Your task to perform on an android device: Clear all items from cart on costco.com. Image 0: 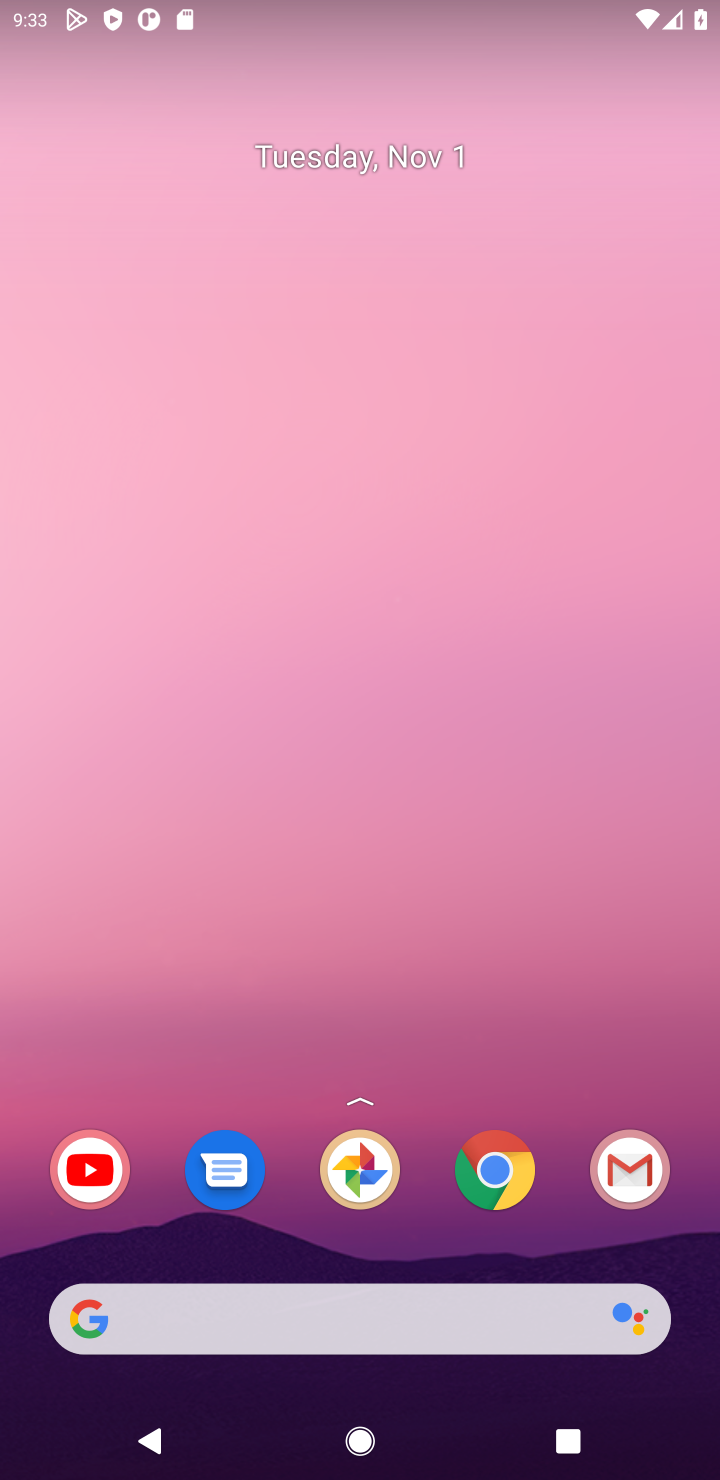
Step 0: click (410, 159)
Your task to perform on an android device: Clear all items from cart on costco.com. Image 1: 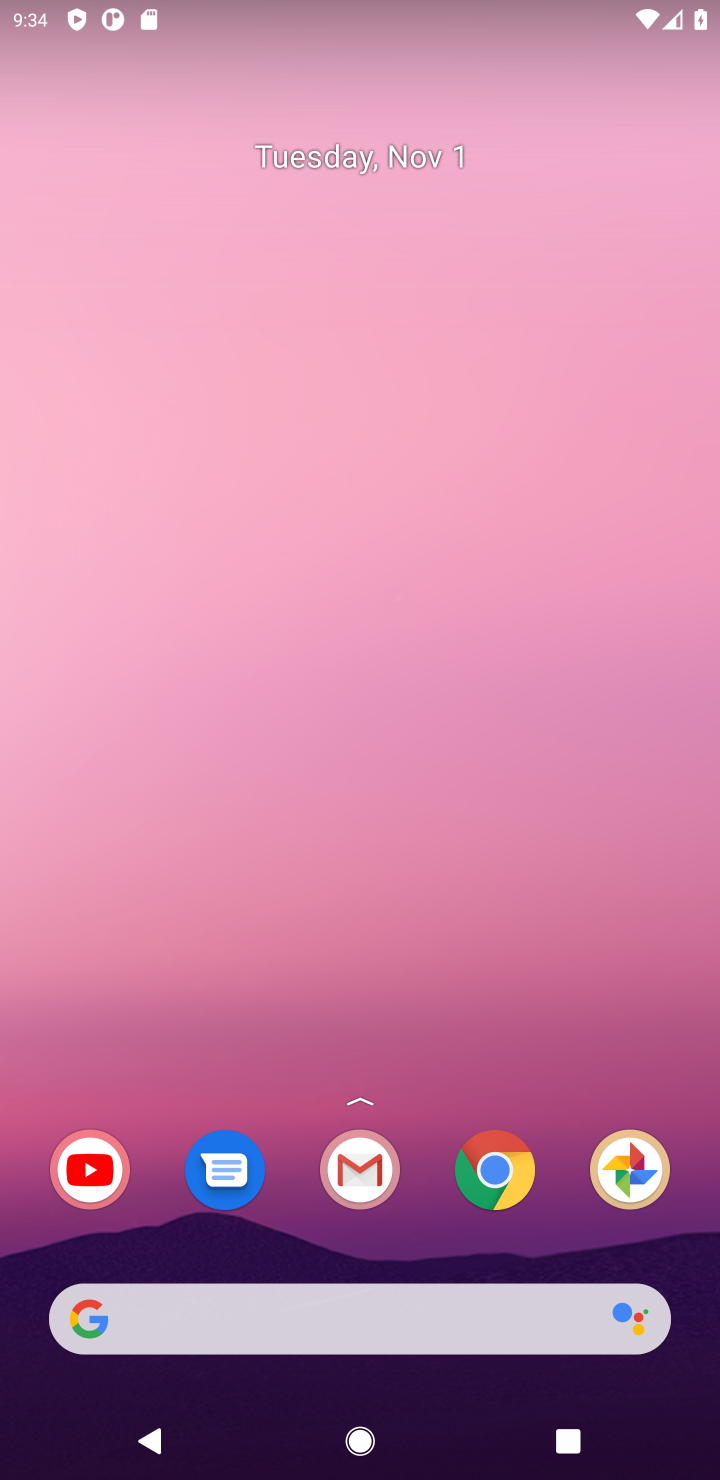
Step 1: drag from (416, 1099) to (398, 27)
Your task to perform on an android device: Clear all items from cart on costco.com. Image 2: 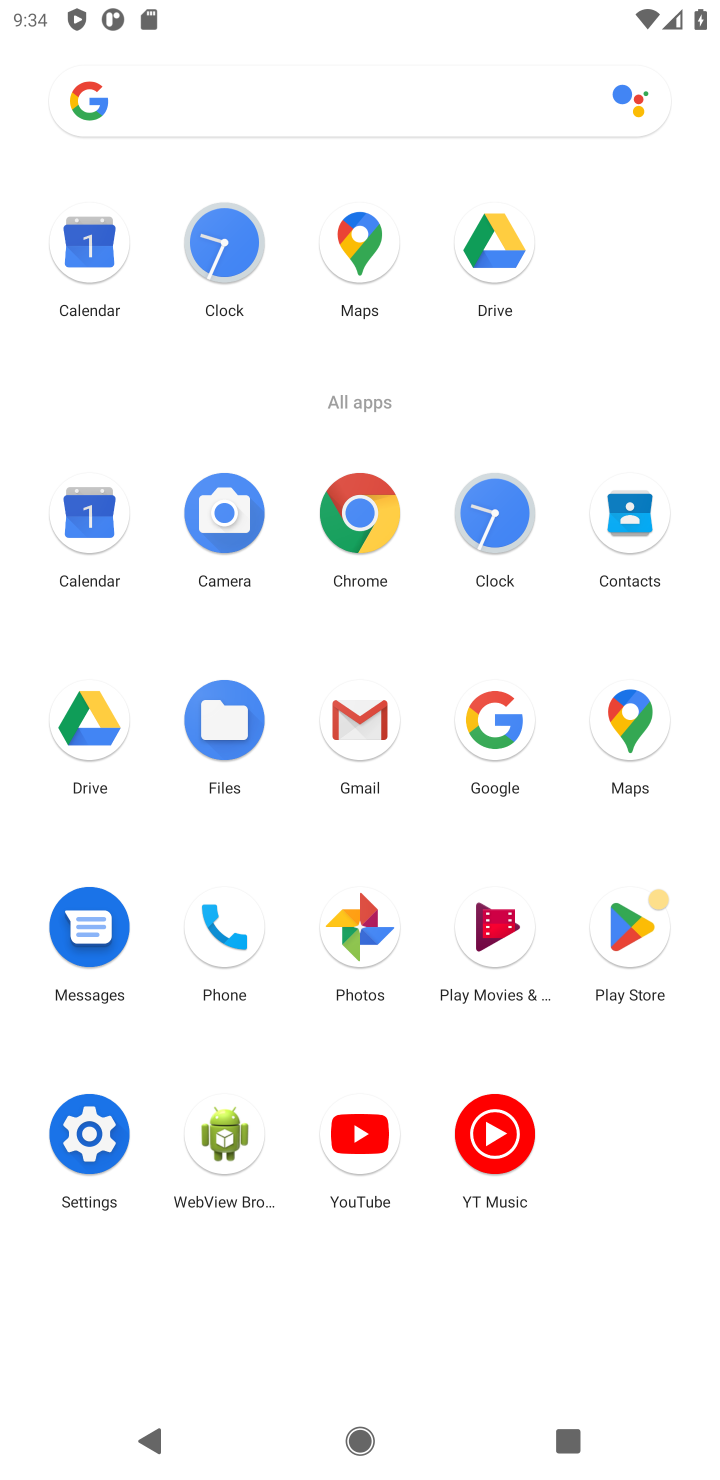
Step 2: click (357, 513)
Your task to perform on an android device: Clear all items from cart on costco.com. Image 3: 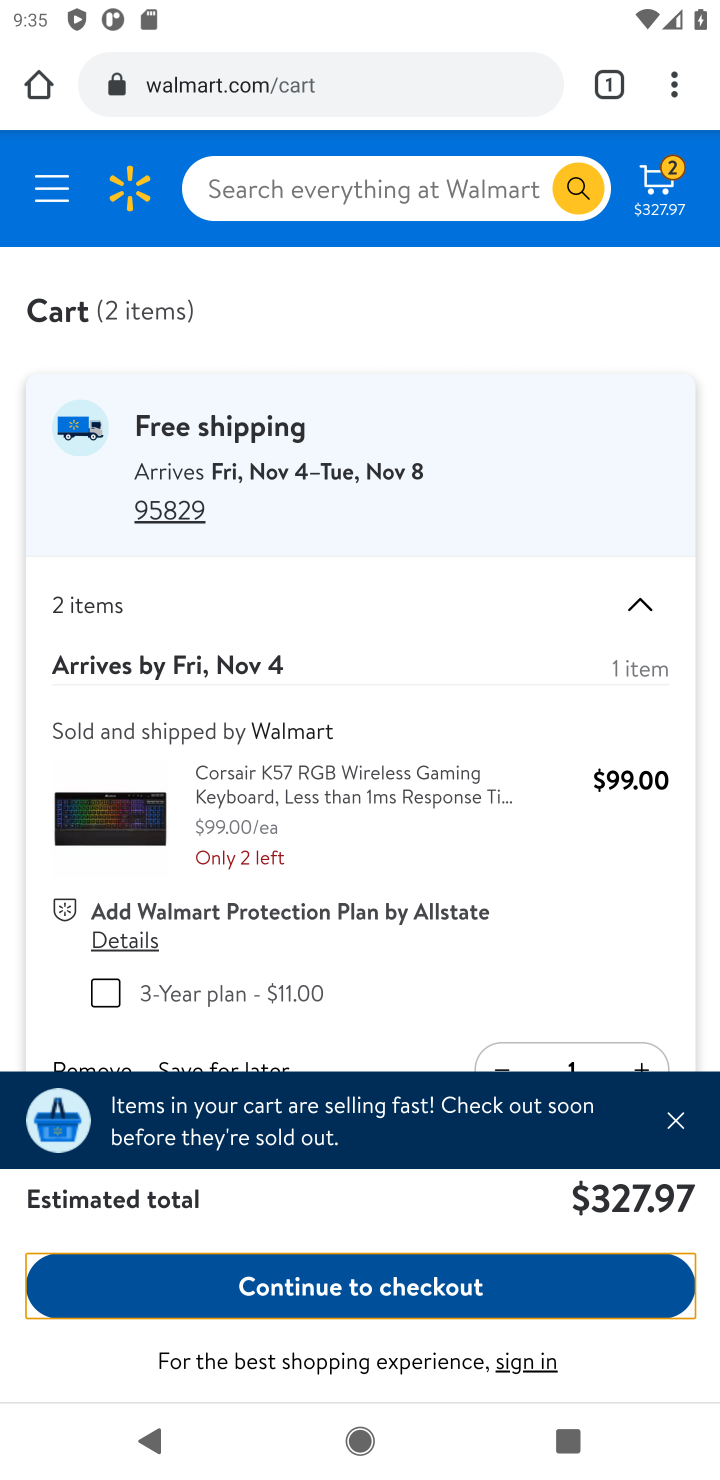
Step 3: click (230, 77)
Your task to perform on an android device: Clear all items from cart on costco.com. Image 4: 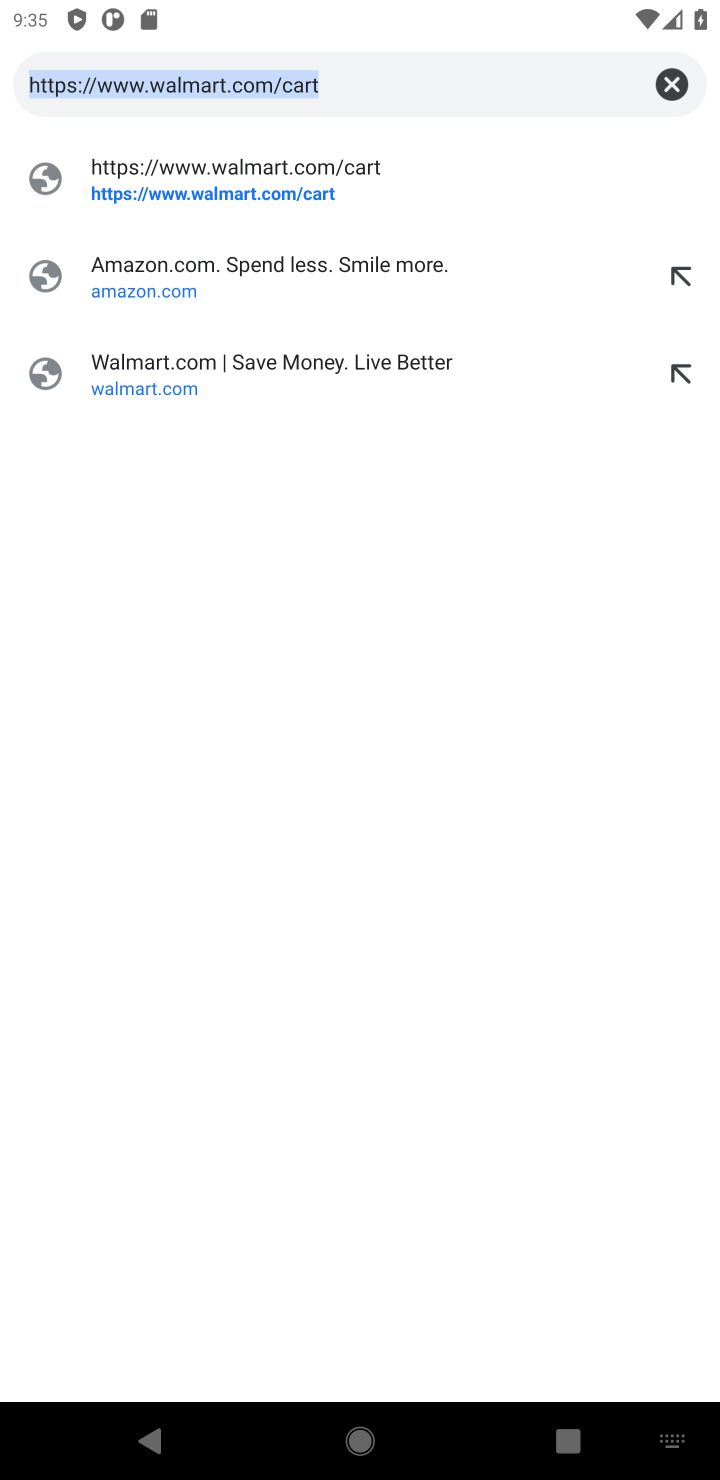
Step 4: type "costco.com."
Your task to perform on an android device: Clear all items from cart on costco.com. Image 5: 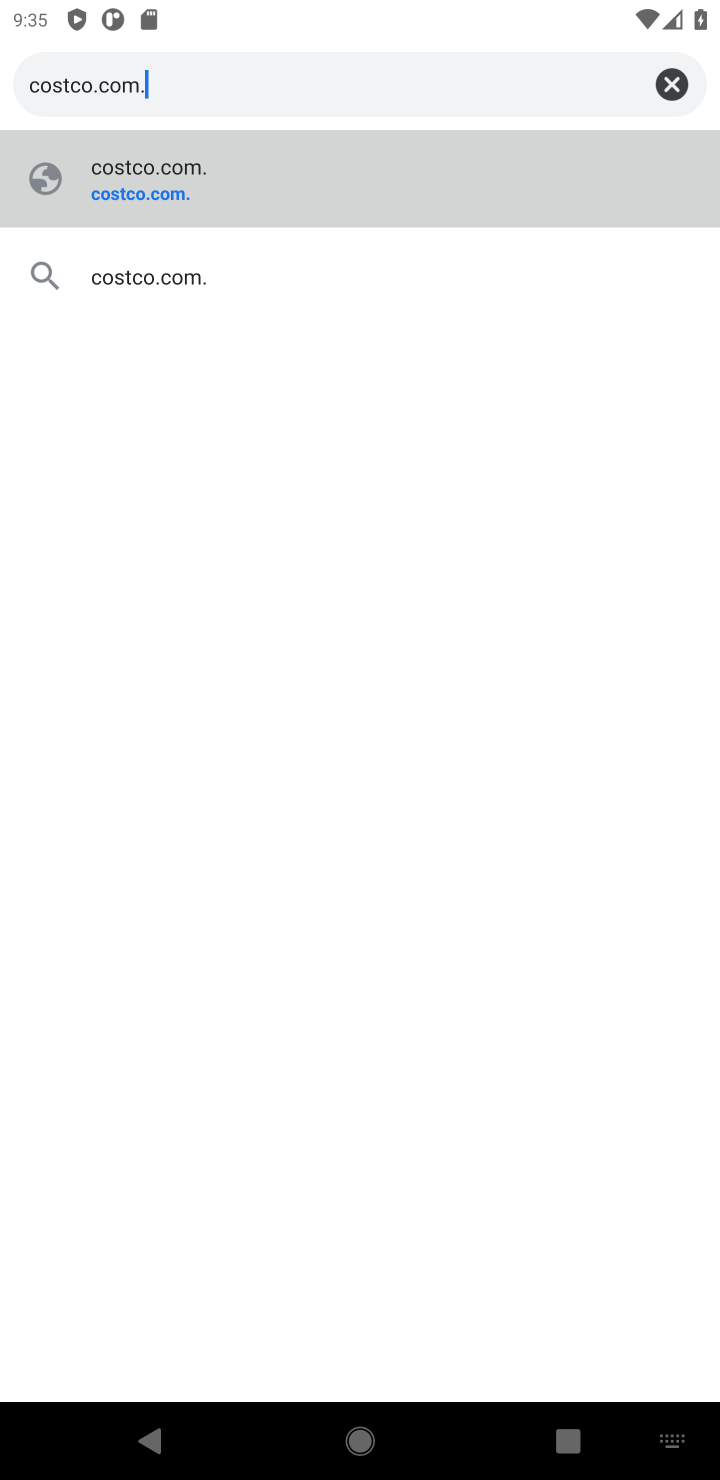
Step 5: type "costco.com"
Your task to perform on an android device: Clear all items from cart on costco.com. Image 6: 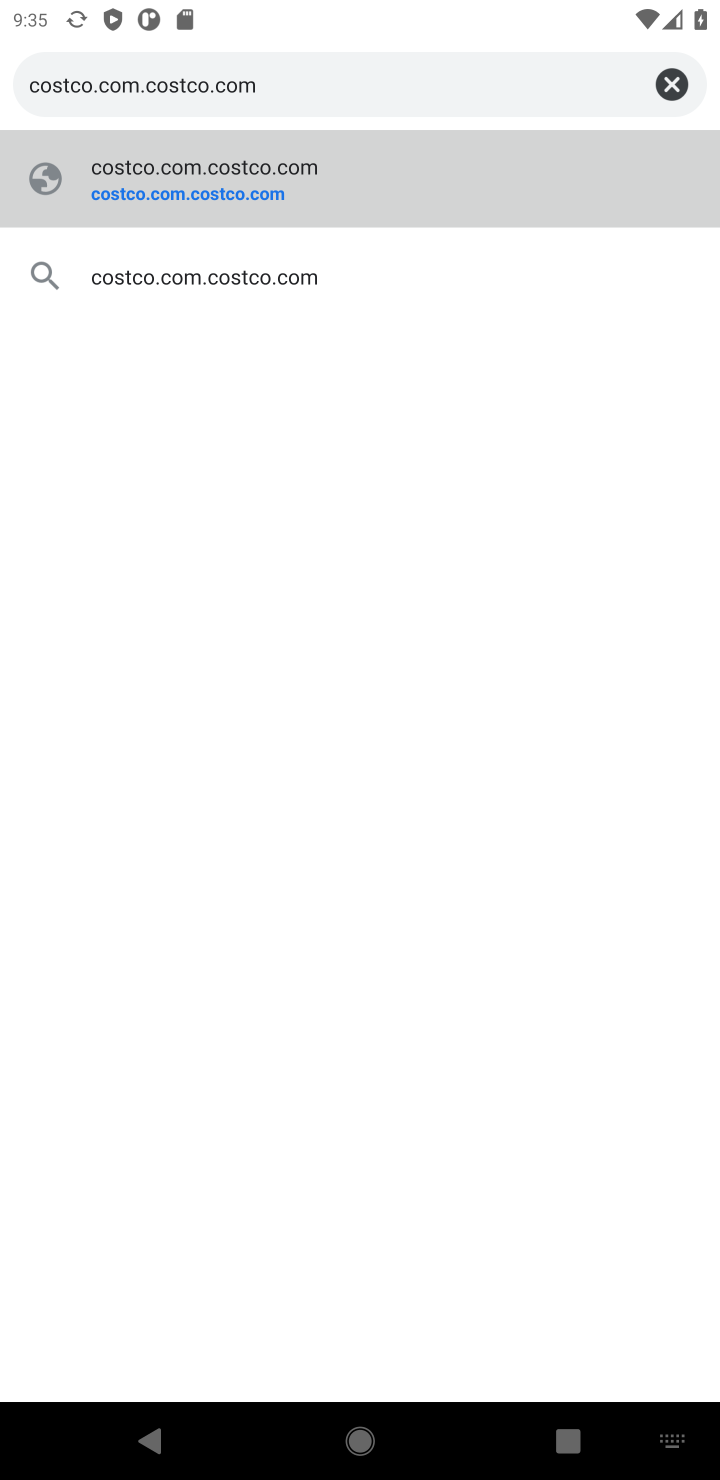
Step 6: click (146, 194)
Your task to perform on an android device: Clear all items from cart on costco.com. Image 7: 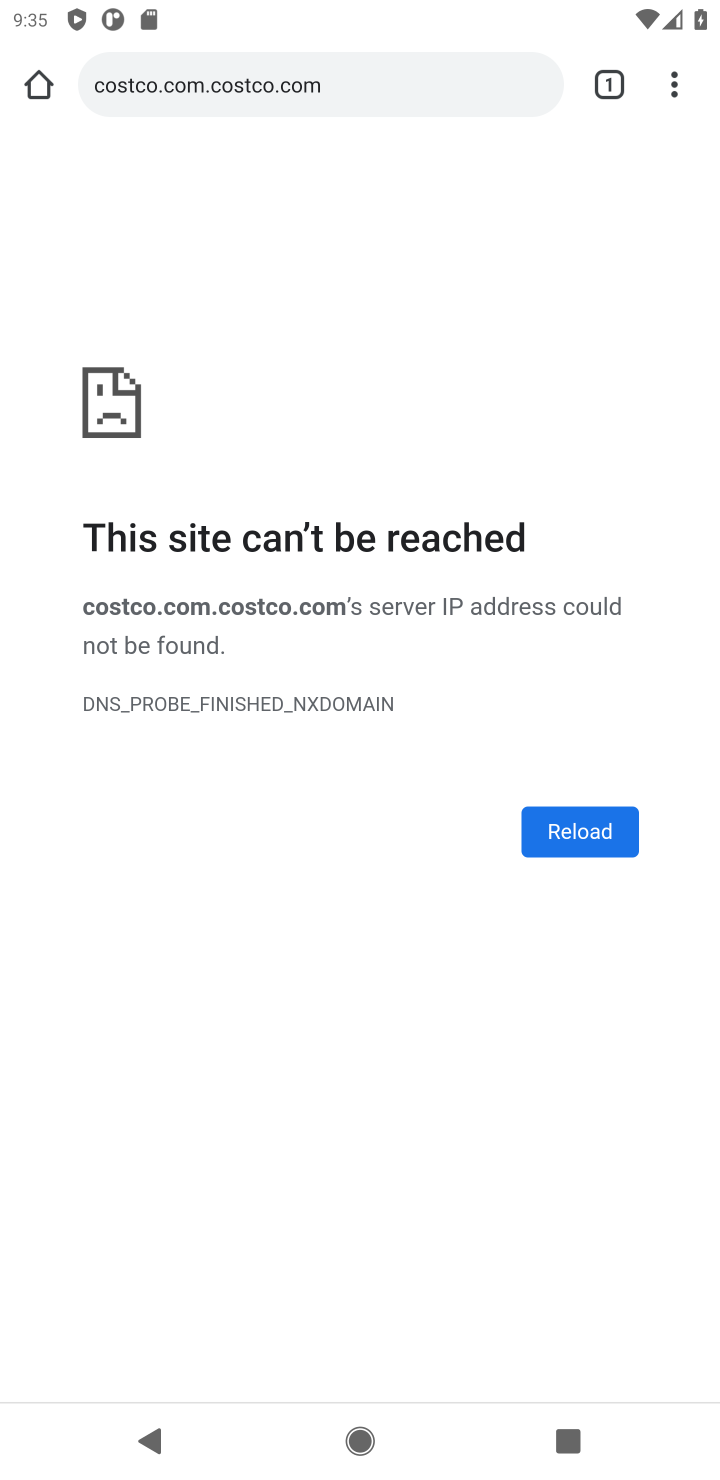
Step 7: click (187, 80)
Your task to perform on an android device: Clear all items from cart on costco.com. Image 8: 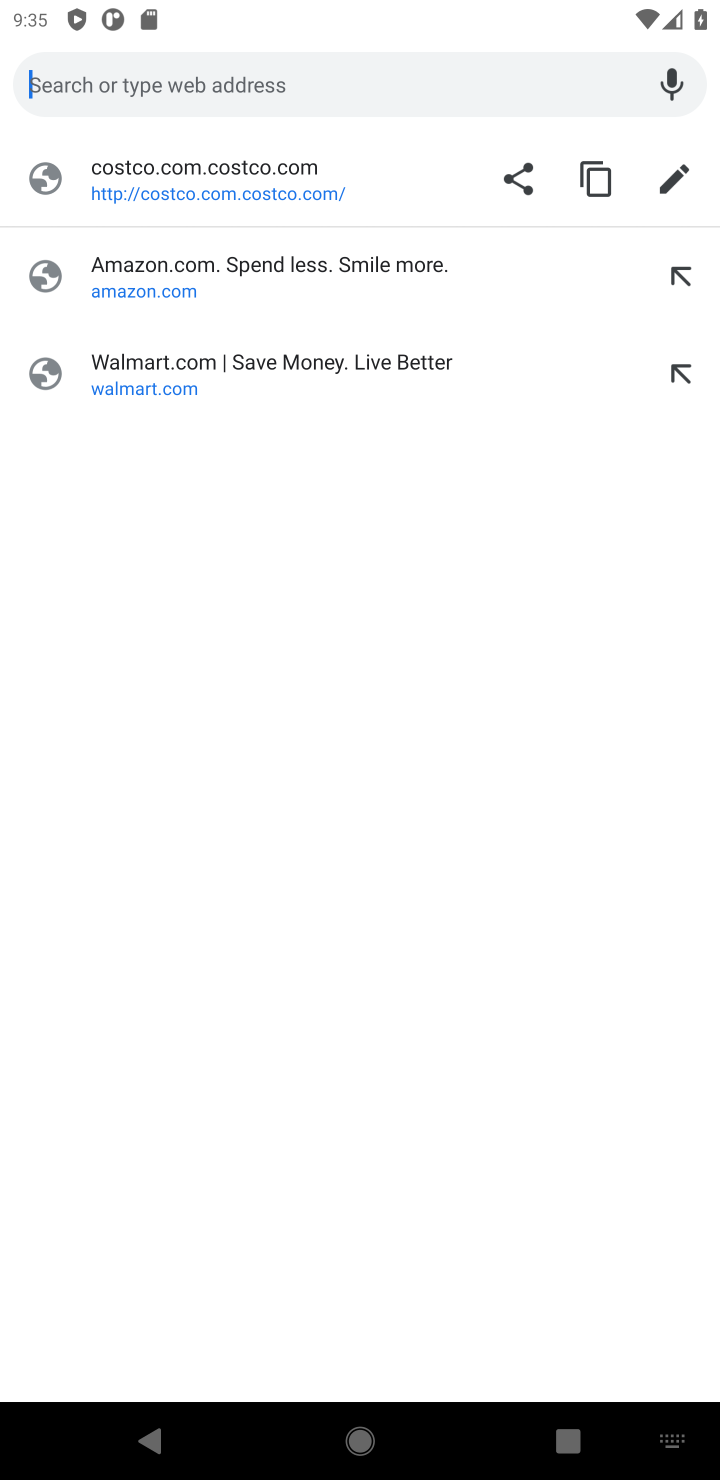
Step 8: type "costco.com."
Your task to perform on an android device: Clear all items from cart on costco.com. Image 9: 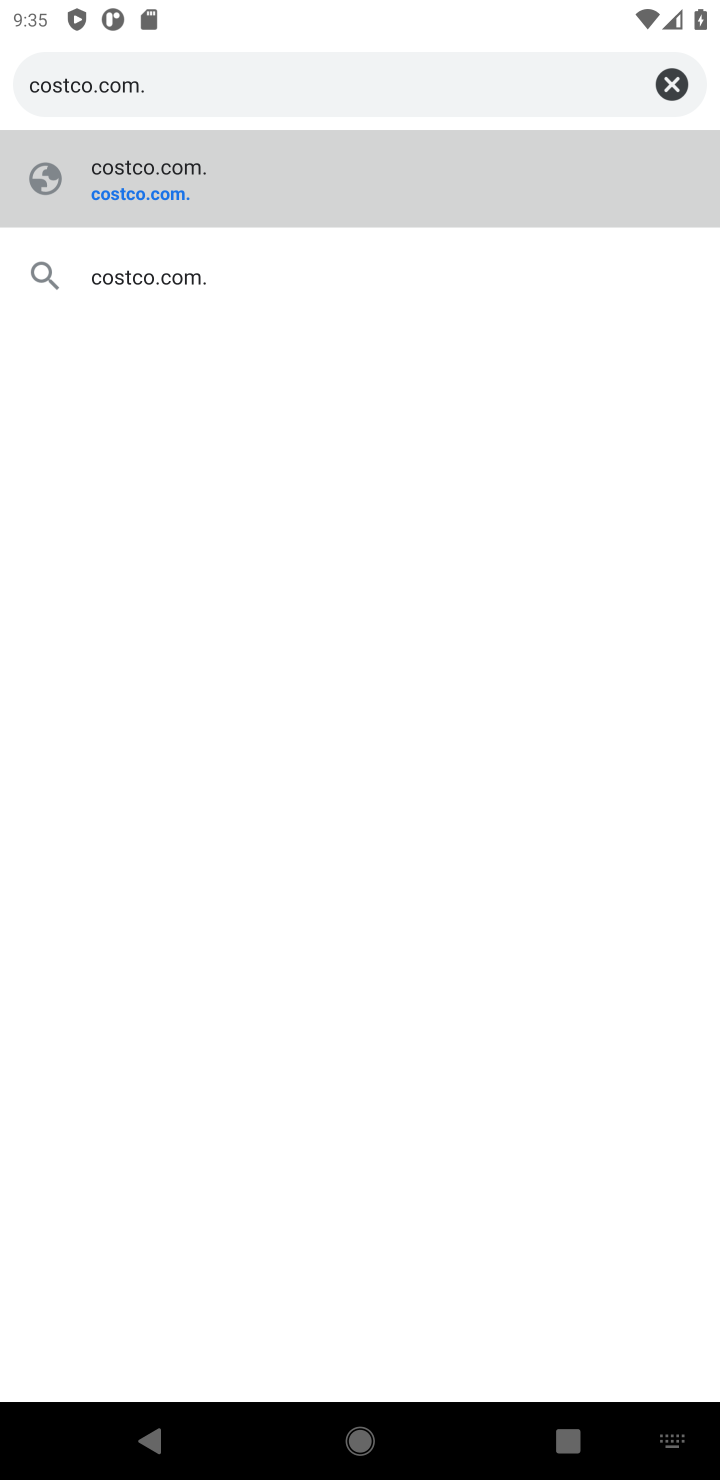
Step 9: click (172, 208)
Your task to perform on an android device: Clear all items from cart on costco.com. Image 10: 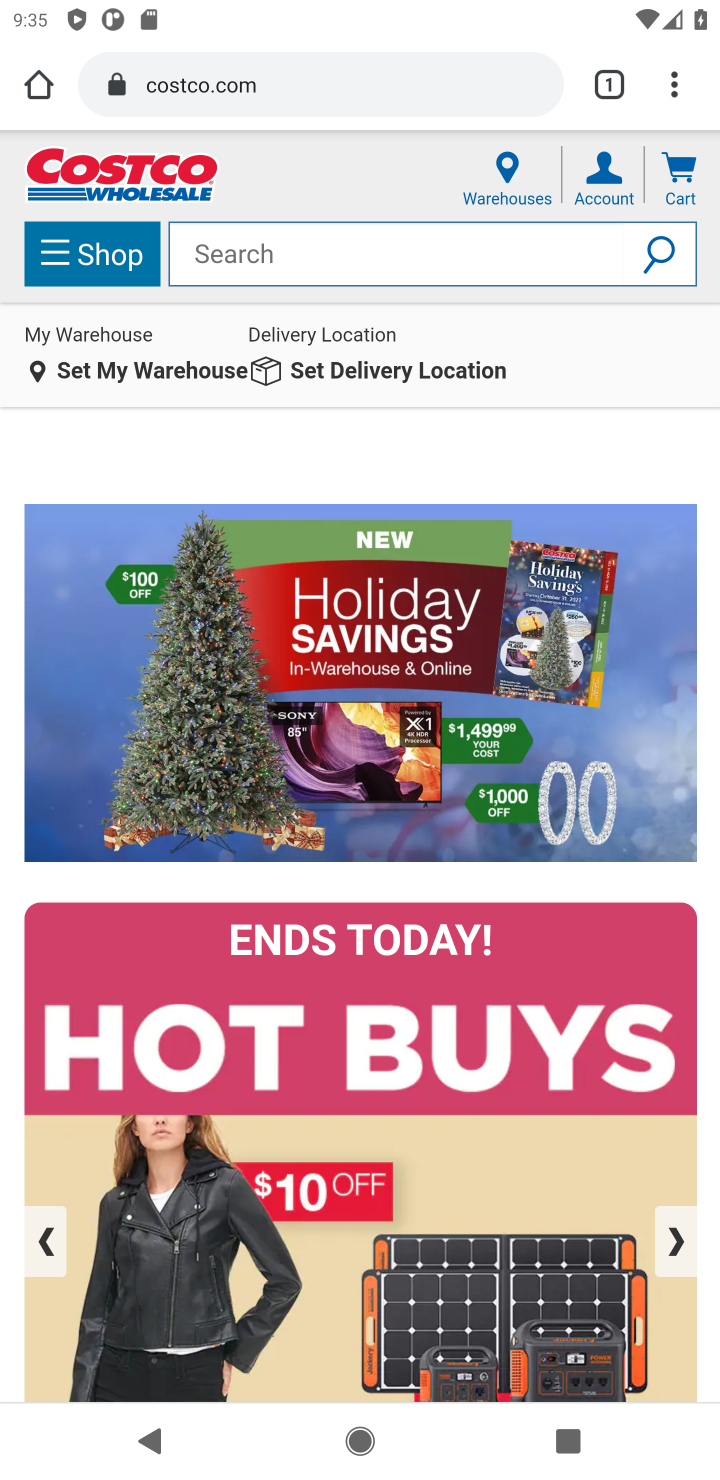
Step 10: click (305, 245)
Your task to perform on an android device: Clear all items from cart on costco.com. Image 11: 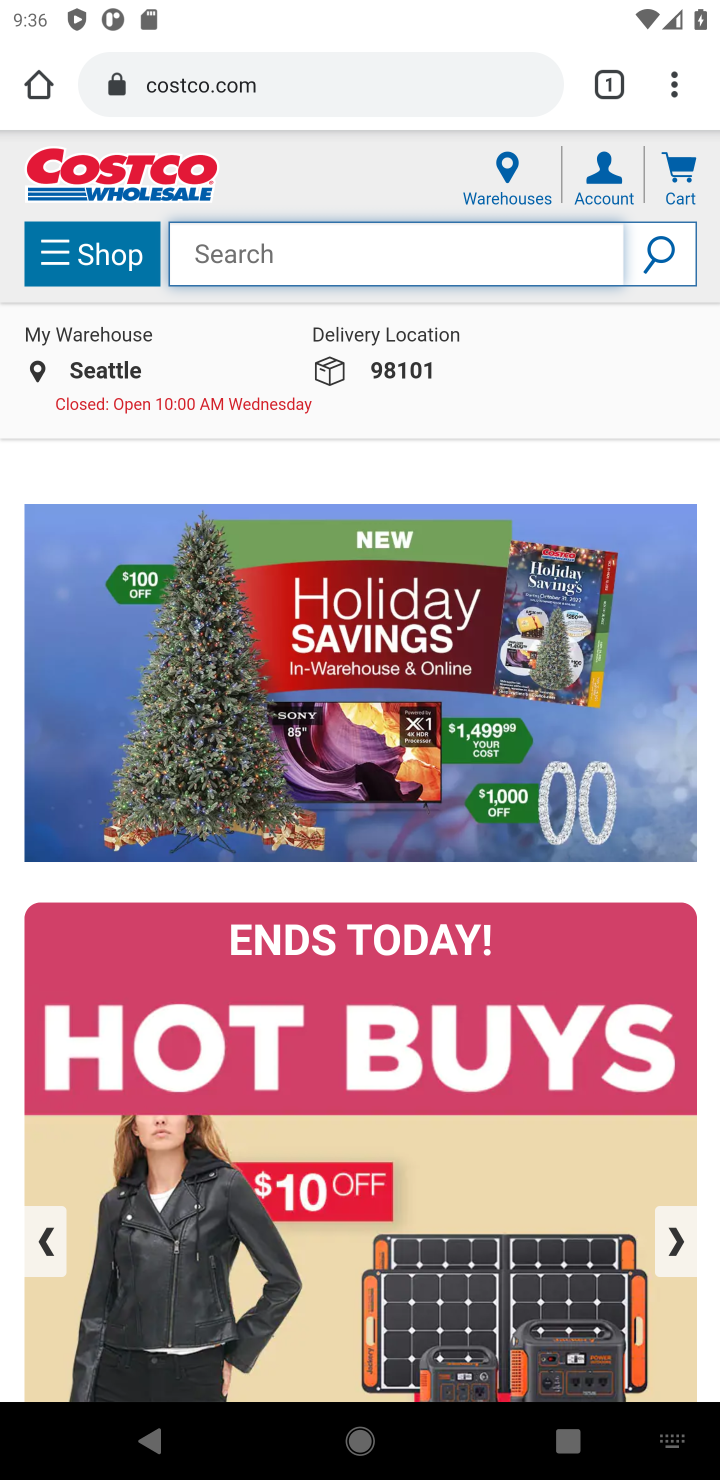
Step 11: click (677, 160)
Your task to perform on an android device: Clear all items from cart on costco.com. Image 12: 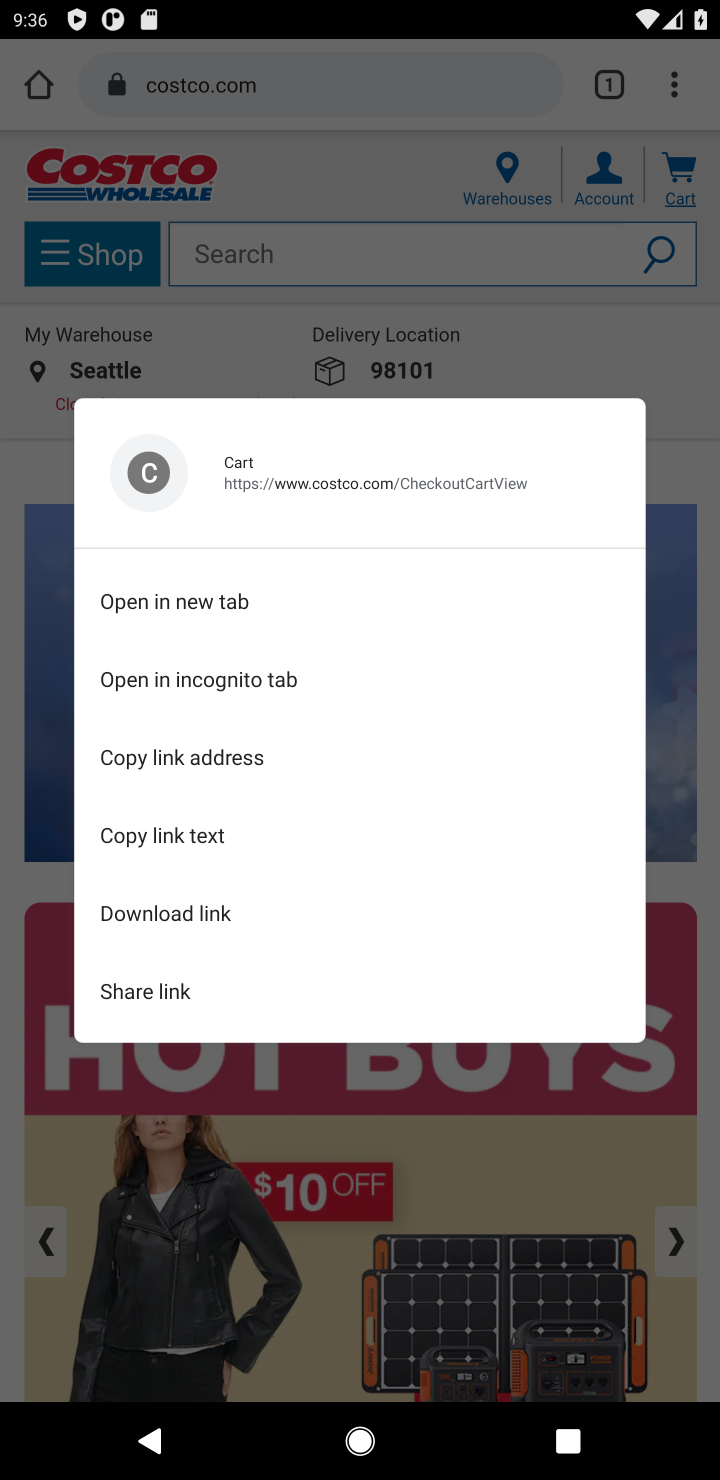
Step 12: click (674, 179)
Your task to perform on an android device: Clear all items from cart on costco.com. Image 13: 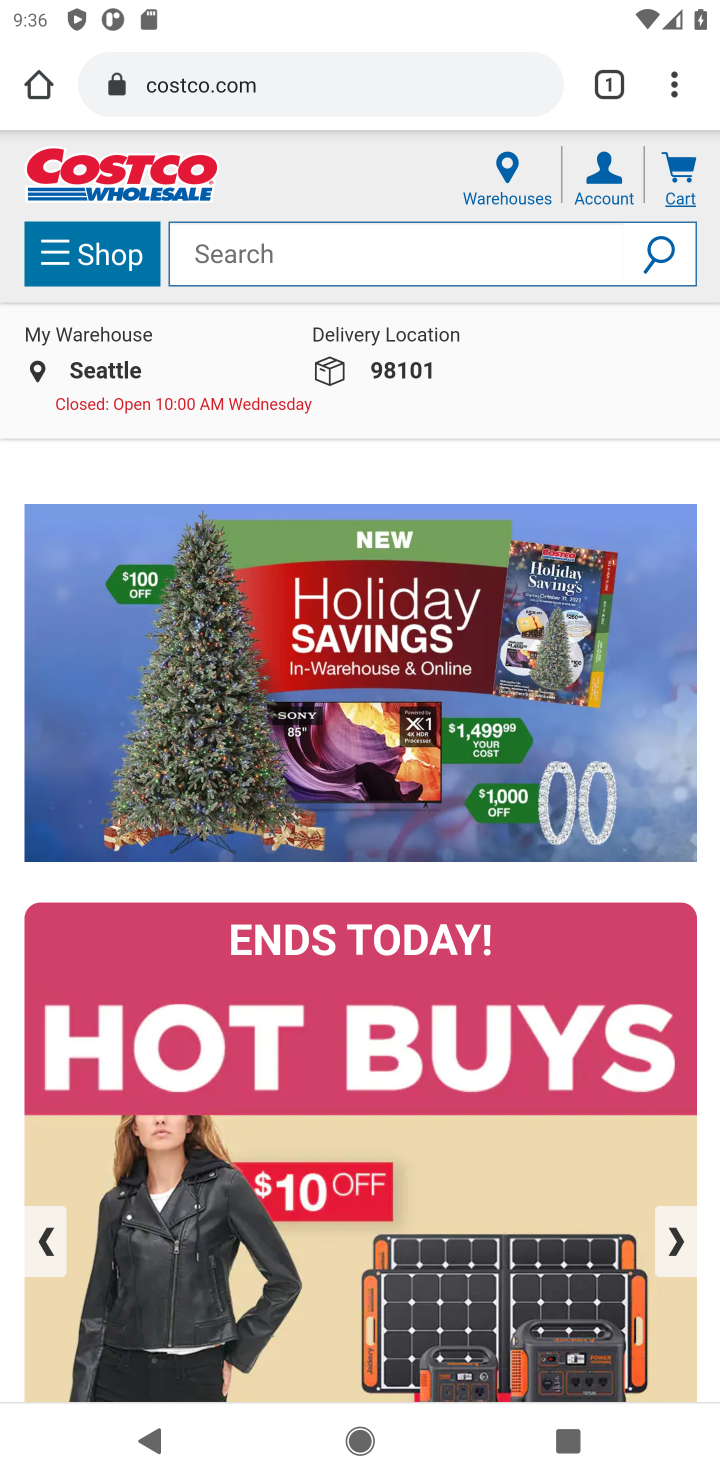
Step 13: click (680, 179)
Your task to perform on an android device: Clear all items from cart on costco.com. Image 14: 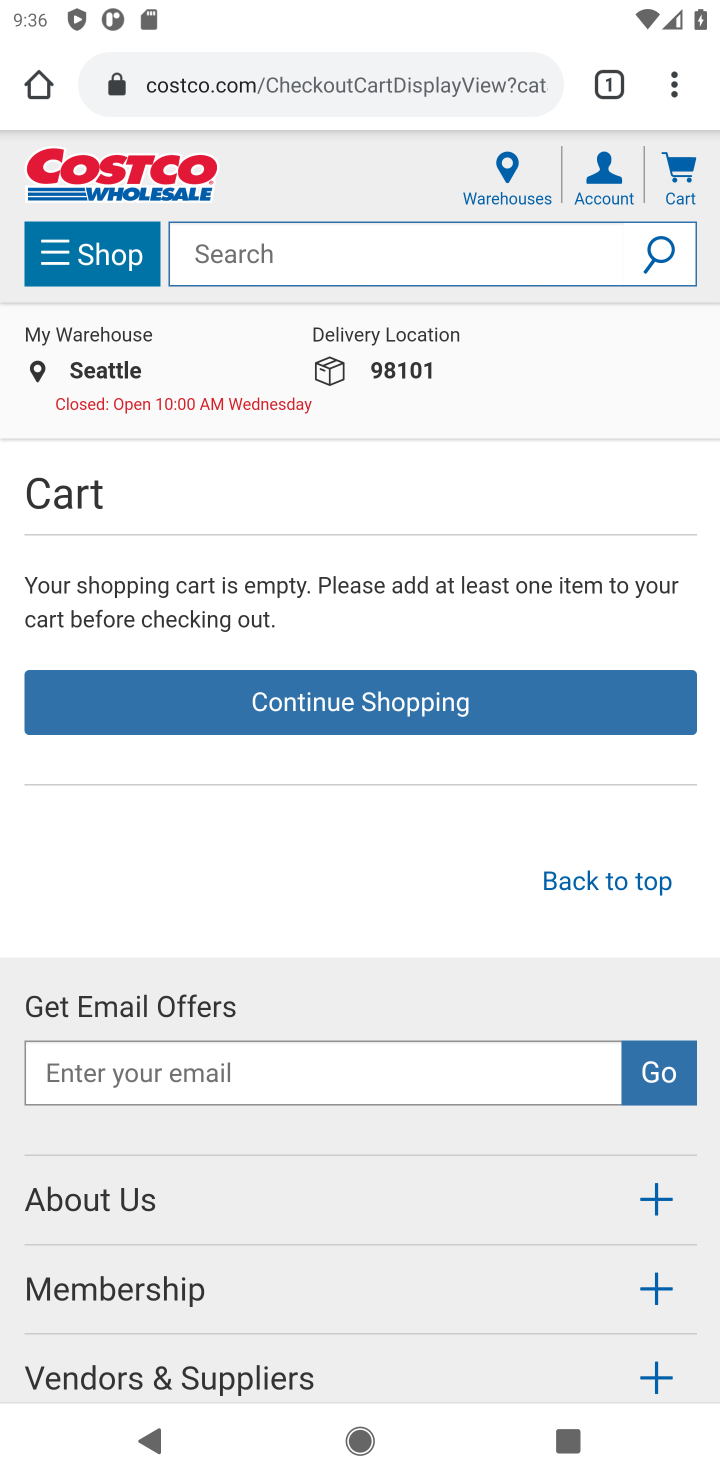
Step 14: task complete